Your task to perform on an android device: toggle wifi Image 0: 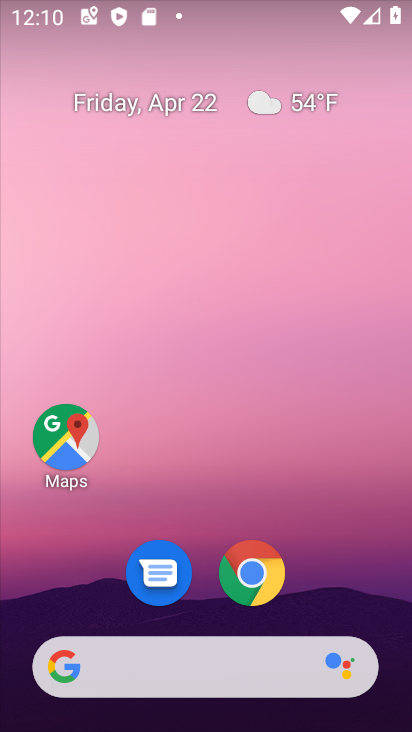
Step 0: drag from (344, 572) to (347, 244)
Your task to perform on an android device: toggle wifi Image 1: 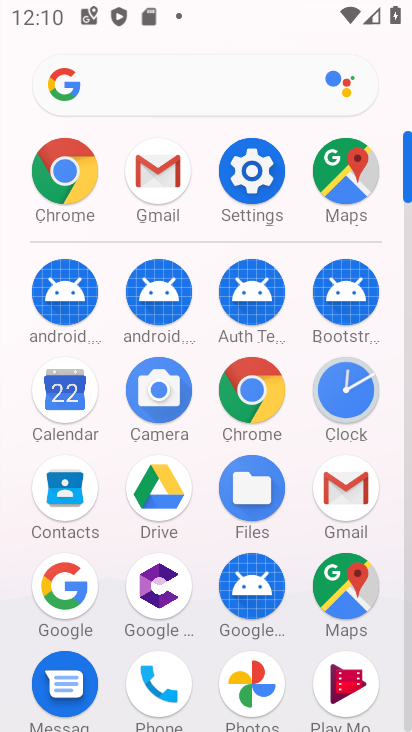
Step 1: drag from (286, 623) to (286, 264)
Your task to perform on an android device: toggle wifi Image 2: 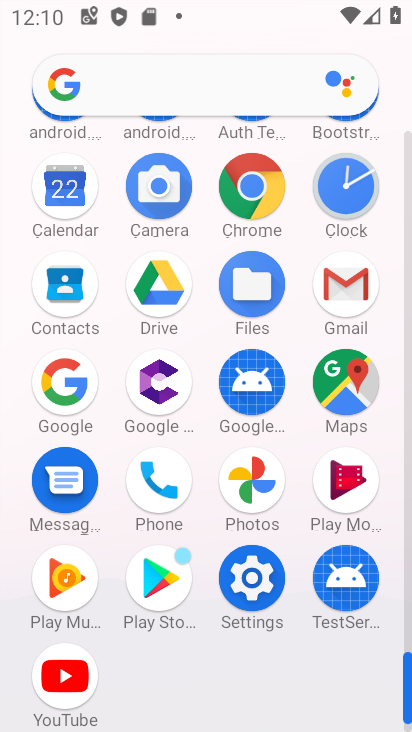
Step 2: click (266, 589)
Your task to perform on an android device: toggle wifi Image 3: 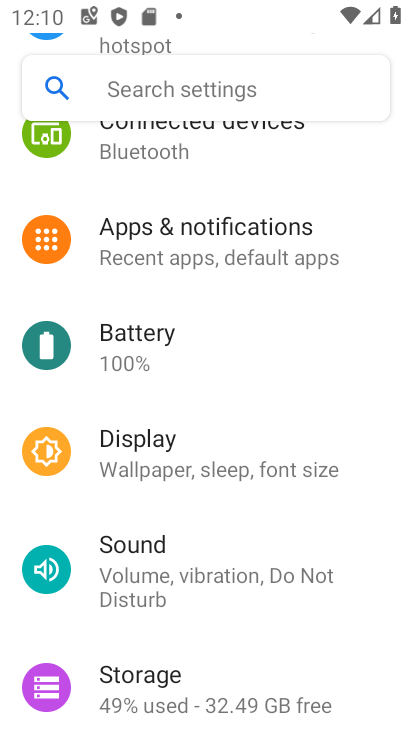
Step 3: drag from (261, 174) to (276, 543)
Your task to perform on an android device: toggle wifi Image 4: 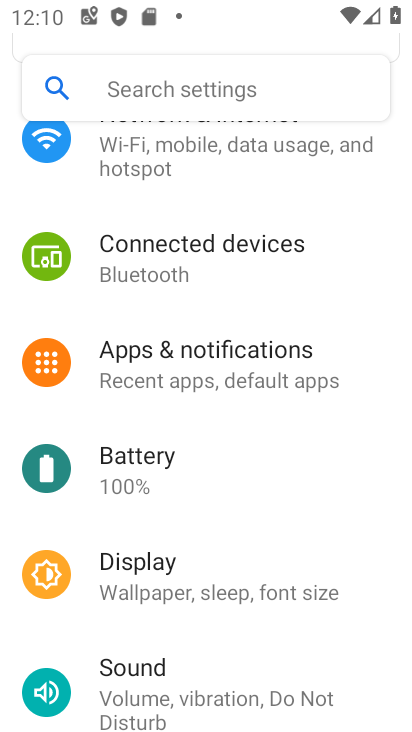
Step 4: drag from (262, 318) to (292, 584)
Your task to perform on an android device: toggle wifi Image 5: 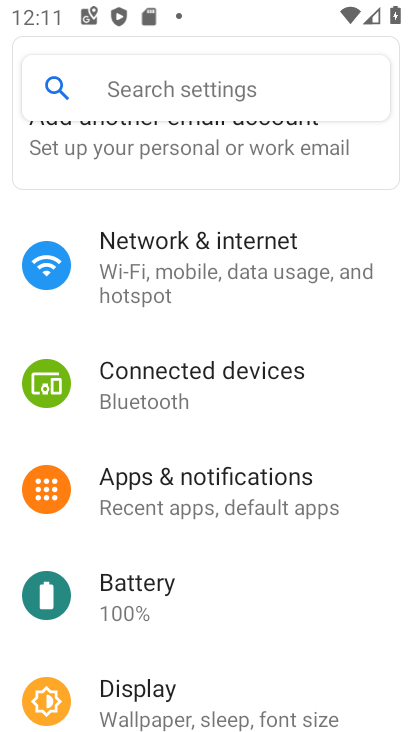
Step 5: click (265, 269)
Your task to perform on an android device: toggle wifi Image 6: 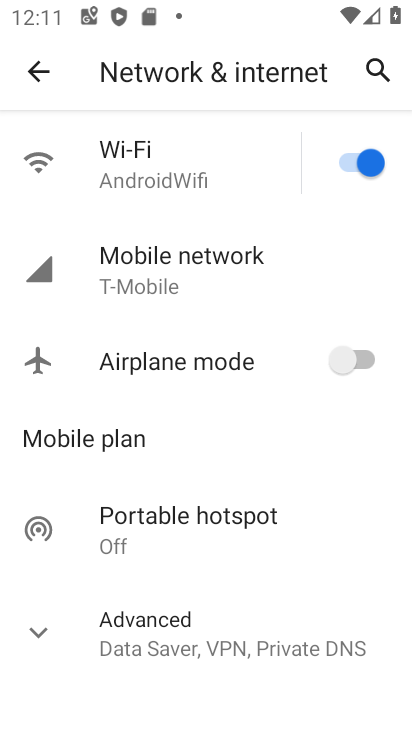
Step 6: click (346, 164)
Your task to perform on an android device: toggle wifi Image 7: 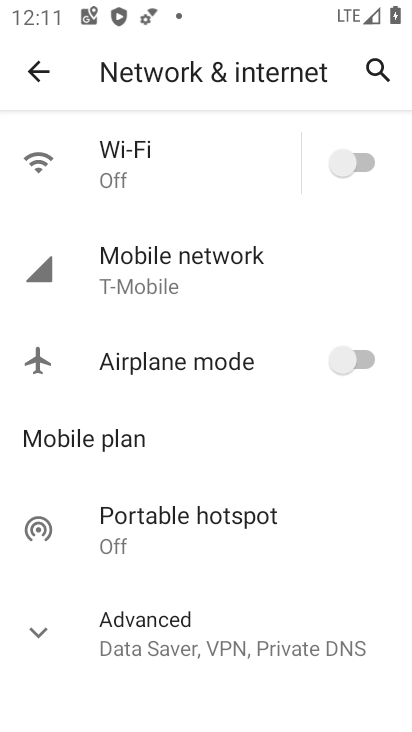
Step 7: task complete